Your task to perform on an android device: What's the weather going to be tomorrow? Image 0: 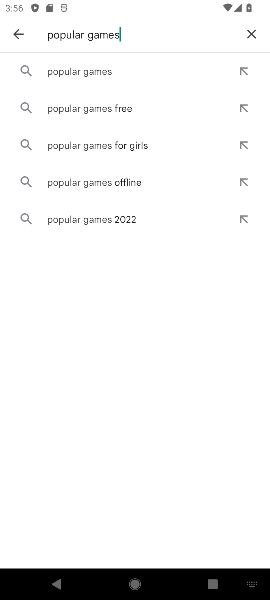
Step 0: press home button
Your task to perform on an android device: What's the weather going to be tomorrow? Image 1: 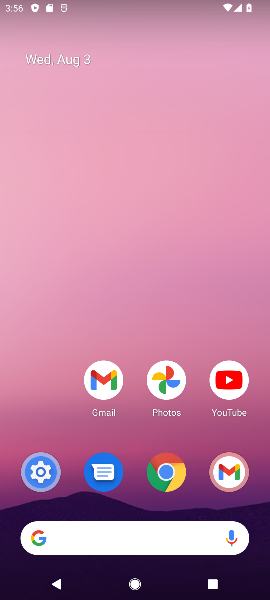
Step 1: drag from (196, 493) to (84, 74)
Your task to perform on an android device: What's the weather going to be tomorrow? Image 2: 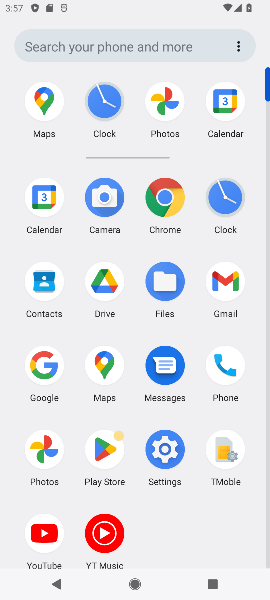
Step 2: click (44, 372)
Your task to perform on an android device: What's the weather going to be tomorrow? Image 3: 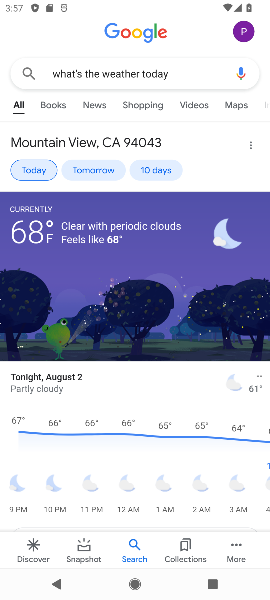
Step 3: press back button
Your task to perform on an android device: What's the weather going to be tomorrow? Image 4: 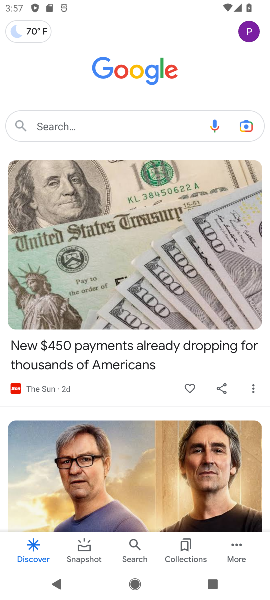
Step 4: click (83, 132)
Your task to perform on an android device: What's the weather going to be tomorrow? Image 5: 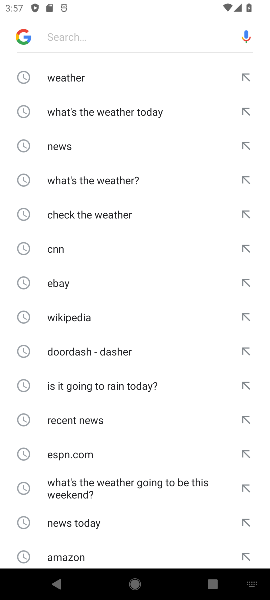
Step 5: type "What's the weather going to be tomorrow?"
Your task to perform on an android device: What's the weather going to be tomorrow? Image 6: 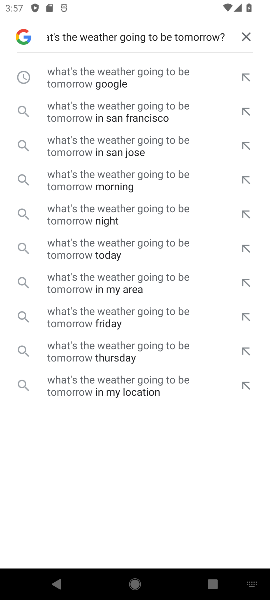
Step 6: click (104, 79)
Your task to perform on an android device: What's the weather going to be tomorrow? Image 7: 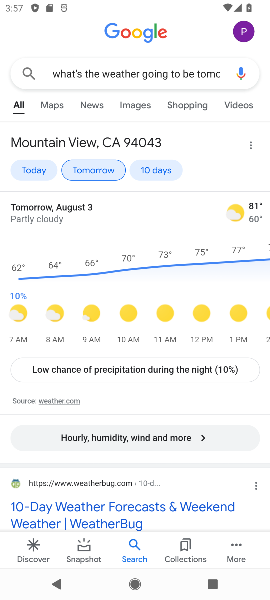
Step 7: task complete